Your task to perform on an android device: Open settings Image 0: 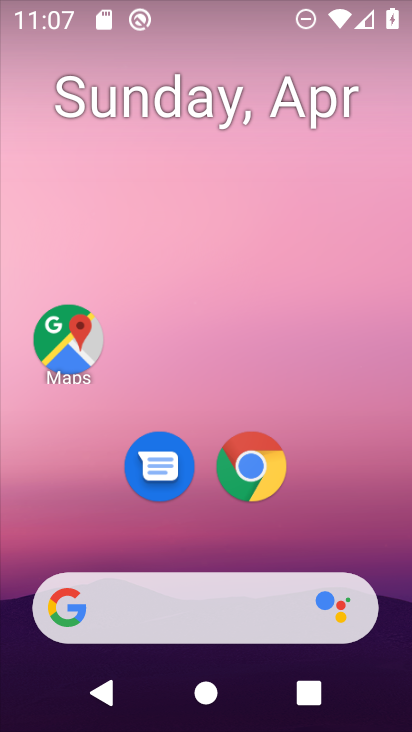
Step 0: drag from (365, 497) to (357, 170)
Your task to perform on an android device: Open settings Image 1: 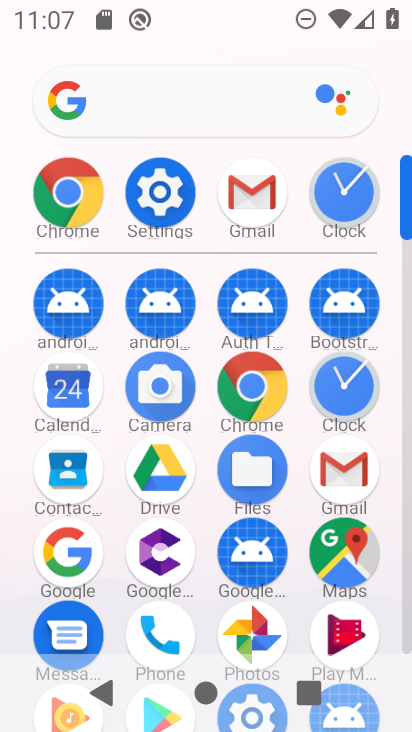
Step 1: click (167, 195)
Your task to perform on an android device: Open settings Image 2: 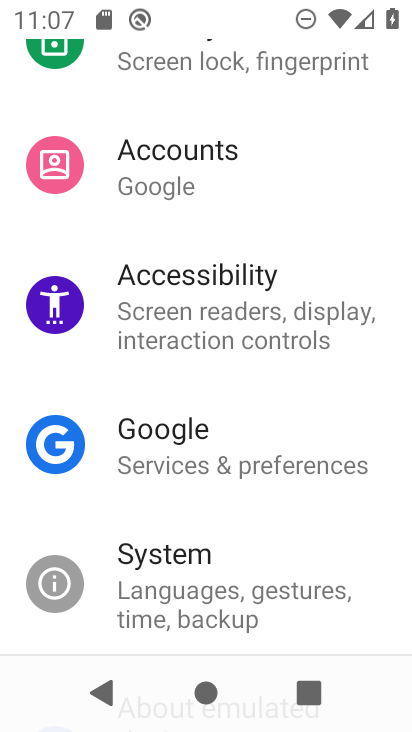
Step 2: task complete